Your task to perform on an android device: What's the weather going to be tomorrow? Image 0: 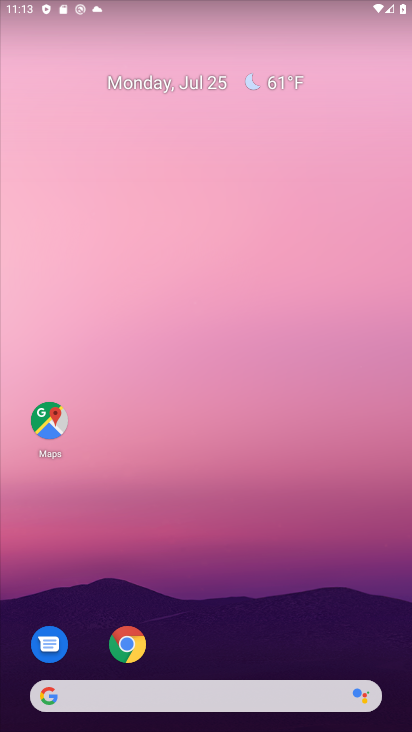
Step 0: drag from (217, 617) to (227, 248)
Your task to perform on an android device: What's the weather going to be tomorrow? Image 1: 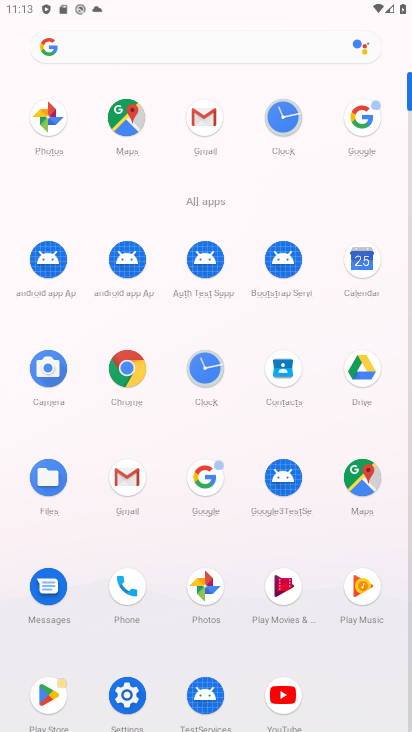
Step 1: click (123, 364)
Your task to perform on an android device: What's the weather going to be tomorrow? Image 2: 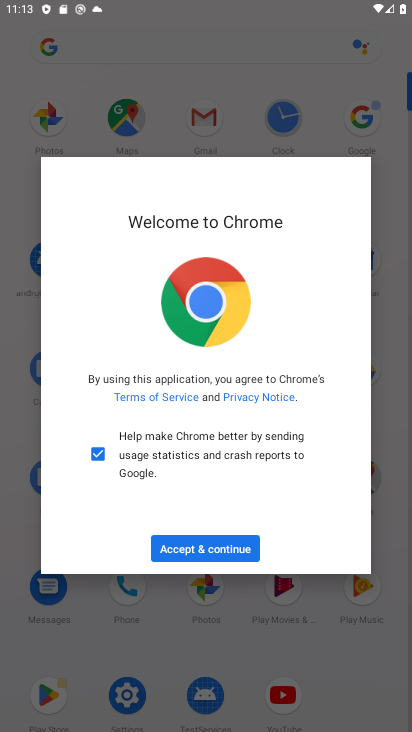
Step 2: click (201, 542)
Your task to perform on an android device: What's the weather going to be tomorrow? Image 3: 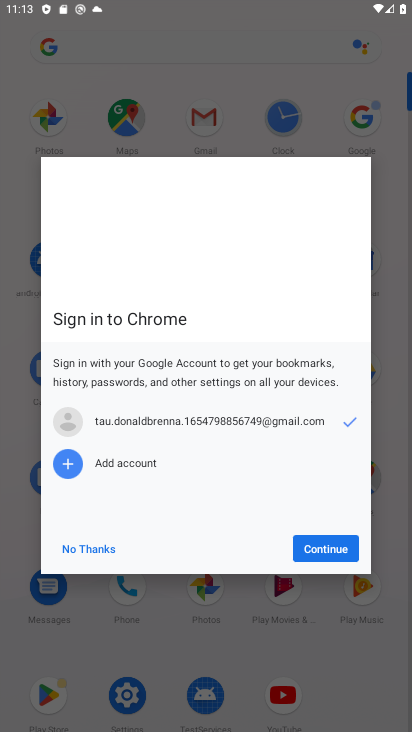
Step 3: click (329, 549)
Your task to perform on an android device: What's the weather going to be tomorrow? Image 4: 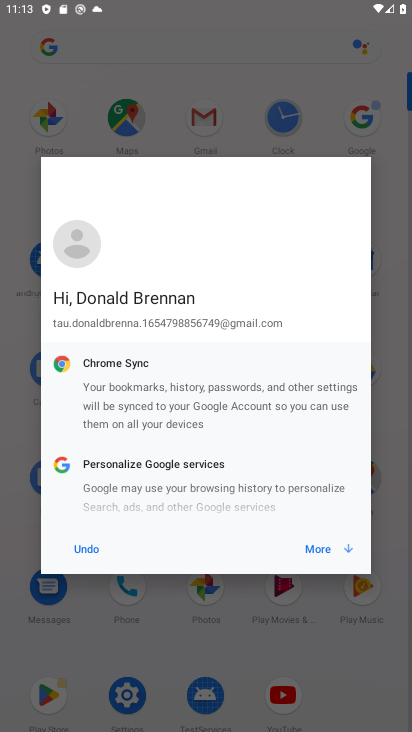
Step 4: click (329, 549)
Your task to perform on an android device: What's the weather going to be tomorrow? Image 5: 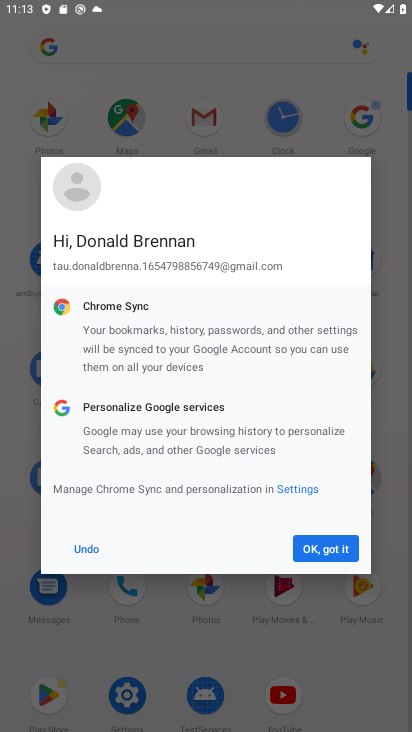
Step 5: click (329, 549)
Your task to perform on an android device: What's the weather going to be tomorrow? Image 6: 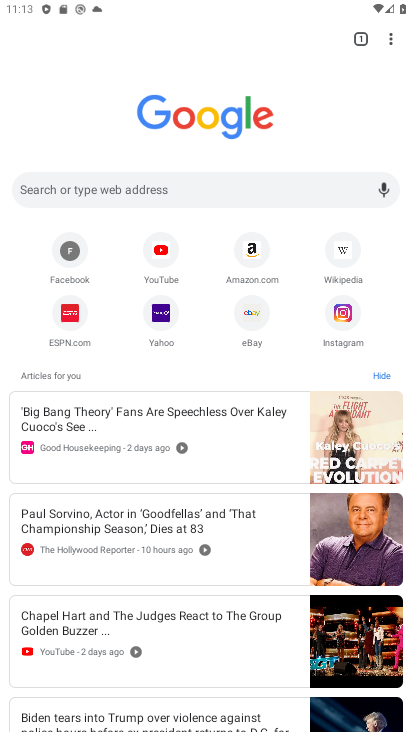
Step 6: click (243, 185)
Your task to perform on an android device: What's the weather going to be tomorrow? Image 7: 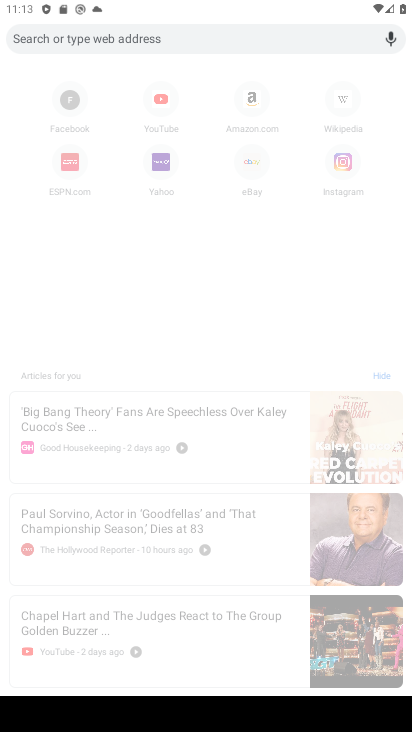
Step 7: type "What's the weather going to be tomorrow? "
Your task to perform on an android device: What's the weather going to be tomorrow? Image 8: 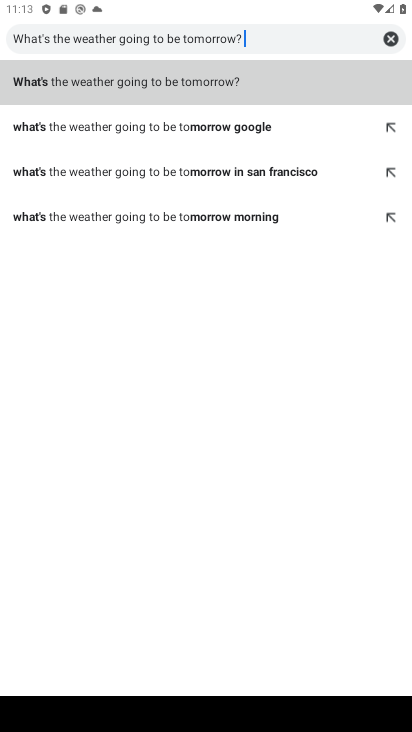
Step 8: click (170, 70)
Your task to perform on an android device: What's the weather going to be tomorrow? Image 9: 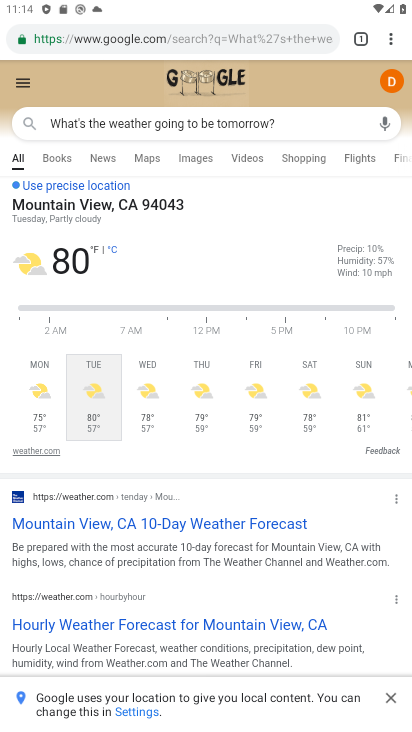
Step 9: task complete